Your task to perform on an android device: Clear the shopping cart on amazon.com. Add "bose soundlink mini" to the cart on amazon.com, then select checkout. Image 0: 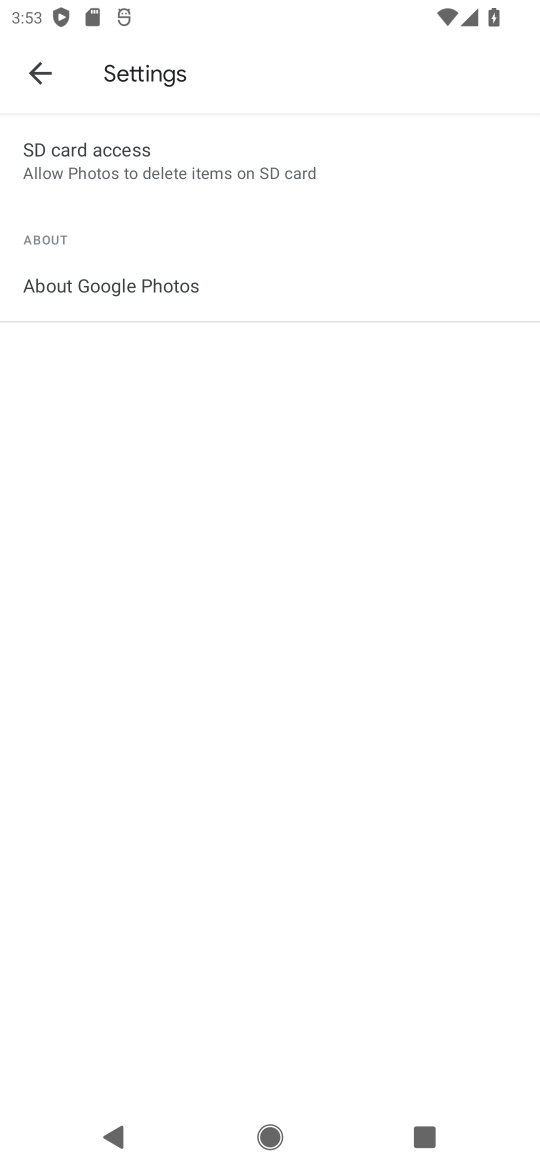
Step 0: press home button
Your task to perform on an android device: Clear the shopping cart on amazon.com. Add "bose soundlink mini" to the cart on amazon.com, then select checkout. Image 1: 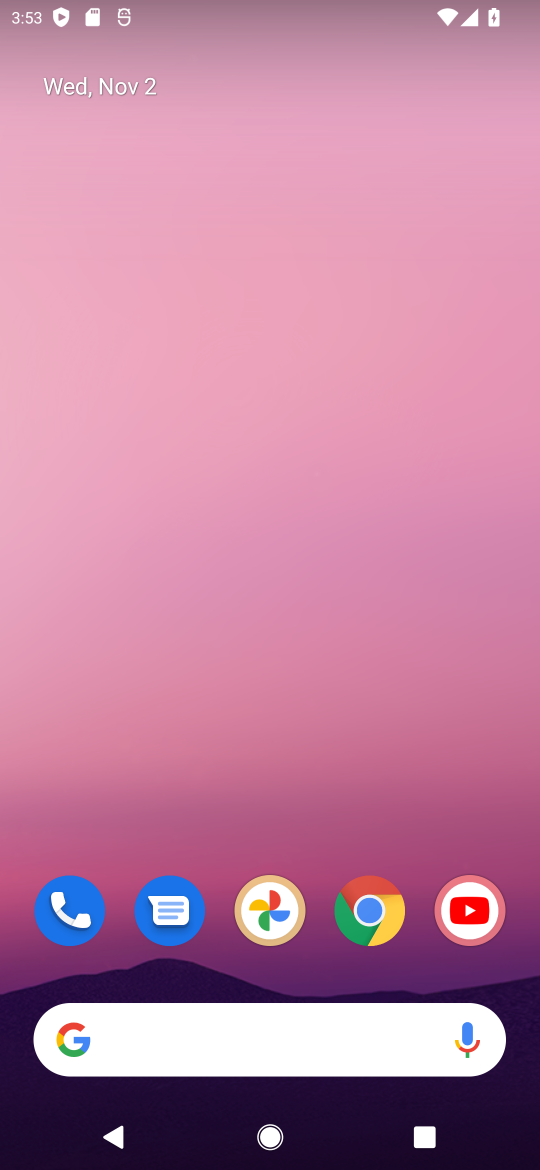
Step 1: click (365, 933)
Your task to perform on an android device: Clear the shopping cart on amazon.com. Add "bose soundlink mini" to the cart on amazon.com, then select checkout. Image 2: 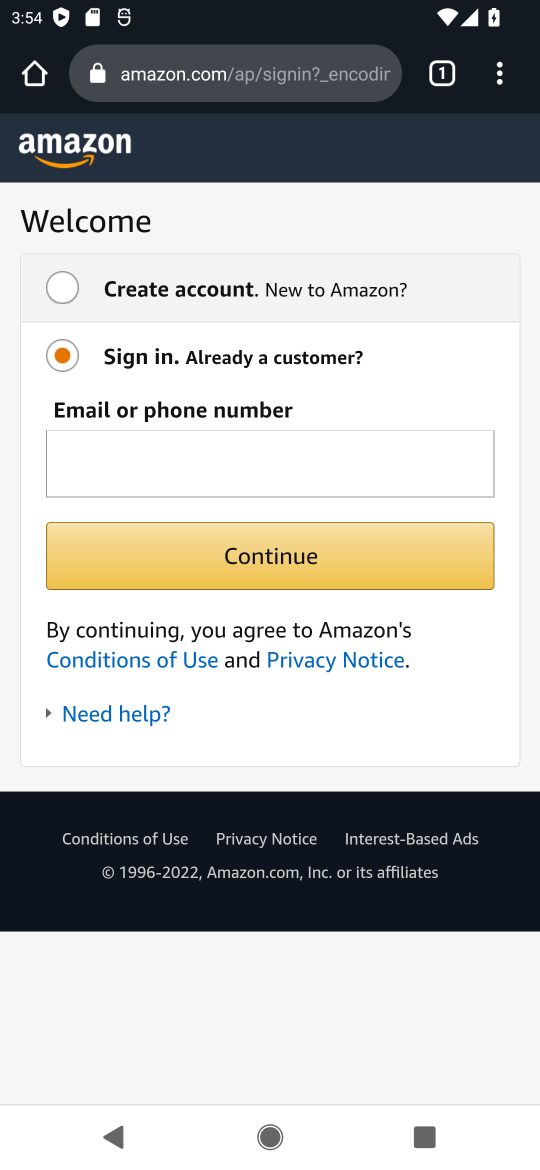
Step 2: click (94, 151)
Your task to perform on an android device: Clear the shopping cart on amazon.com. Add "bose soundlink mini" to the cart on amazon.com, then select checkout. Image 3: 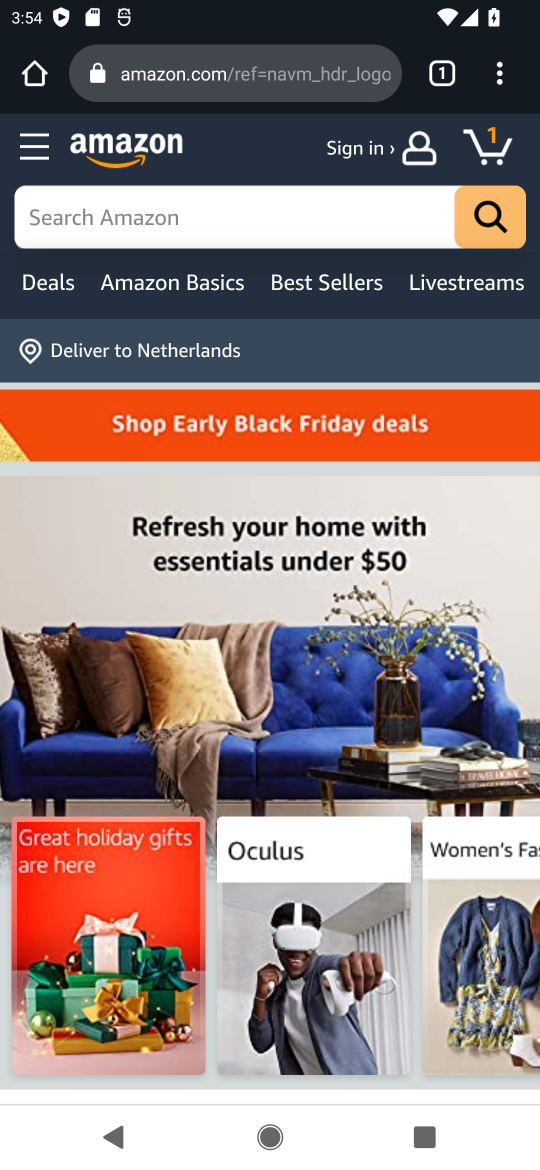
Step 3: click (514, 139)
Your task to perform on an android device: Clear the shopping cart on amazon.com. Add "bose soundlink mini" to the cart on amazon.com, then select checkout. Image 4: 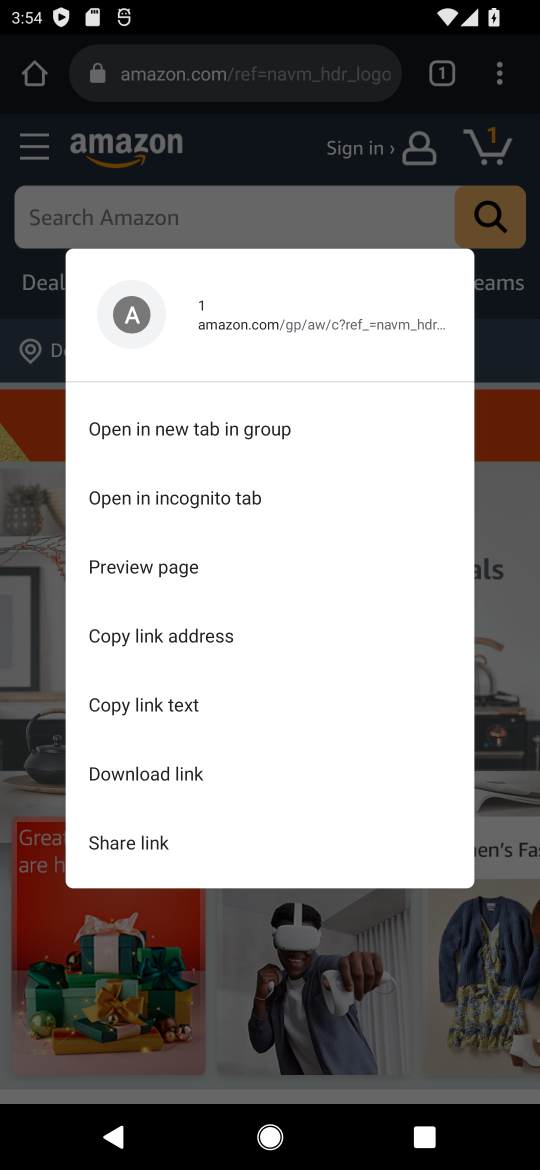
Step 4: click (532, 365)
Your task to perform on an android device: Clear the shopping cart on amazon.com. Add "bose soundlink mini" to the cart on amazon.com, then select checkout. Image 5: 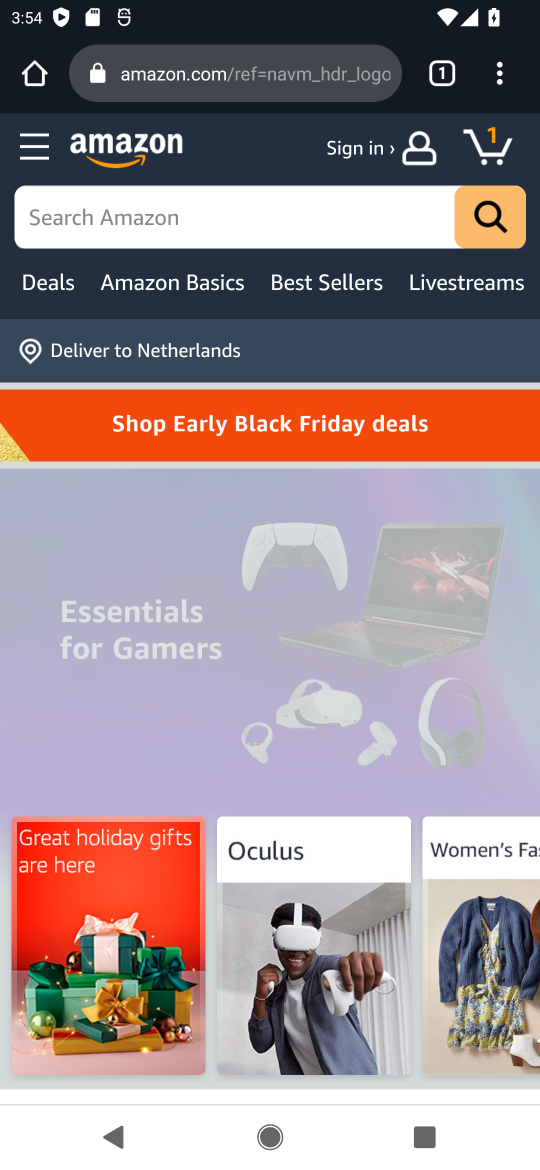
Step 5: click (490, 143)
Your task to perform on an android device: Clear the shopping cart on amazon.com. Add "bose soundlink mini" to the cart on amazon.com, then select checkout. Image 6: 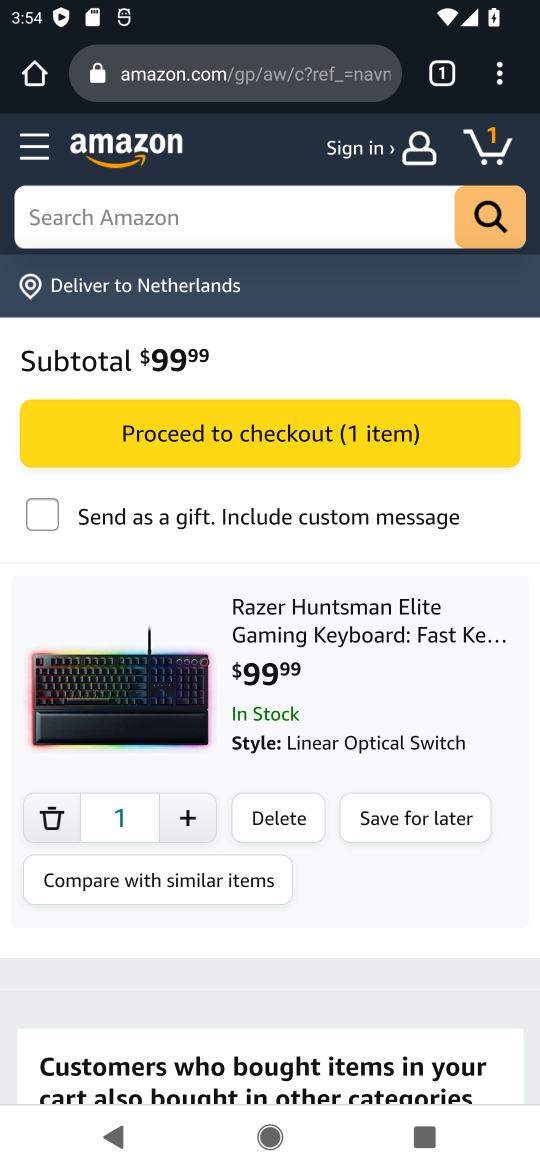
Step 6: click (262, 813)
Your task to perform on an android device: Clear the shopping cart on amazon.com. Add "bose soundlink mini" to the cart on amazon.com, then select checkout. Image 7: 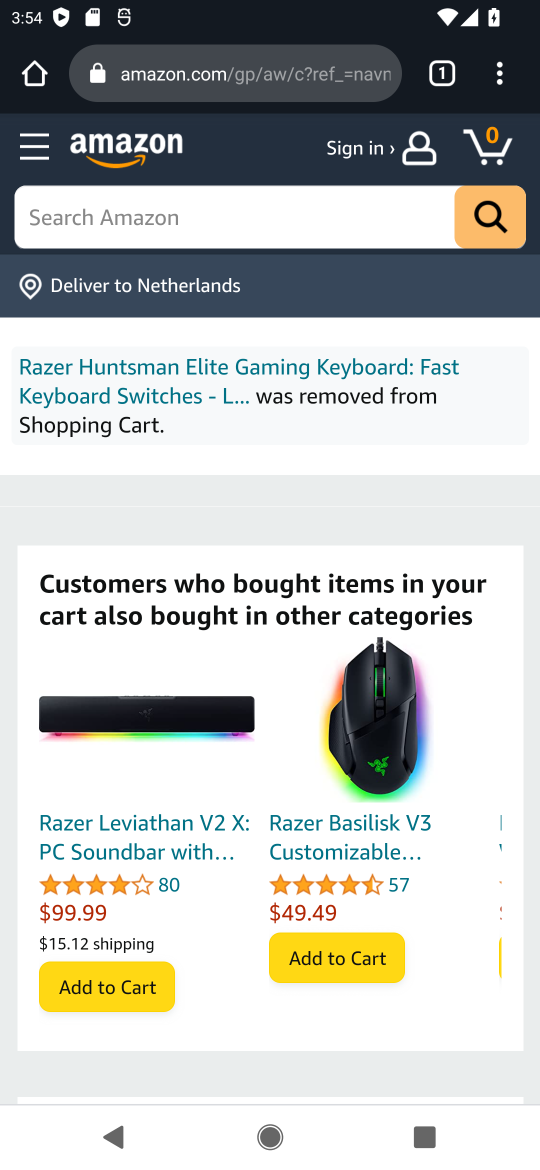
Step 7: click (226, 207)
Your task to perform on an android device: Clear the shopping cart on amazon.com. Add "bose soundlink mini" to the cart on amazon.com, then select checkout. Image 8: 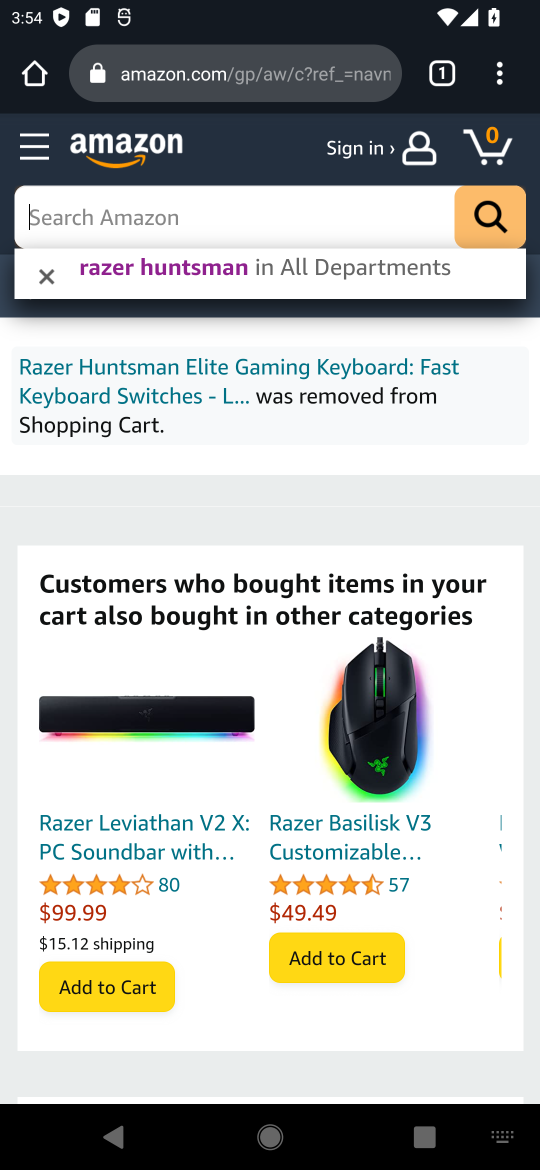
Step 8: type "bose soundlink mini"
Your task to perform on an android device: Clear the shopping cart on amazon.com. Add "bose soundlink mini" to the cart on amazon.com, then select checkout. Image 9: 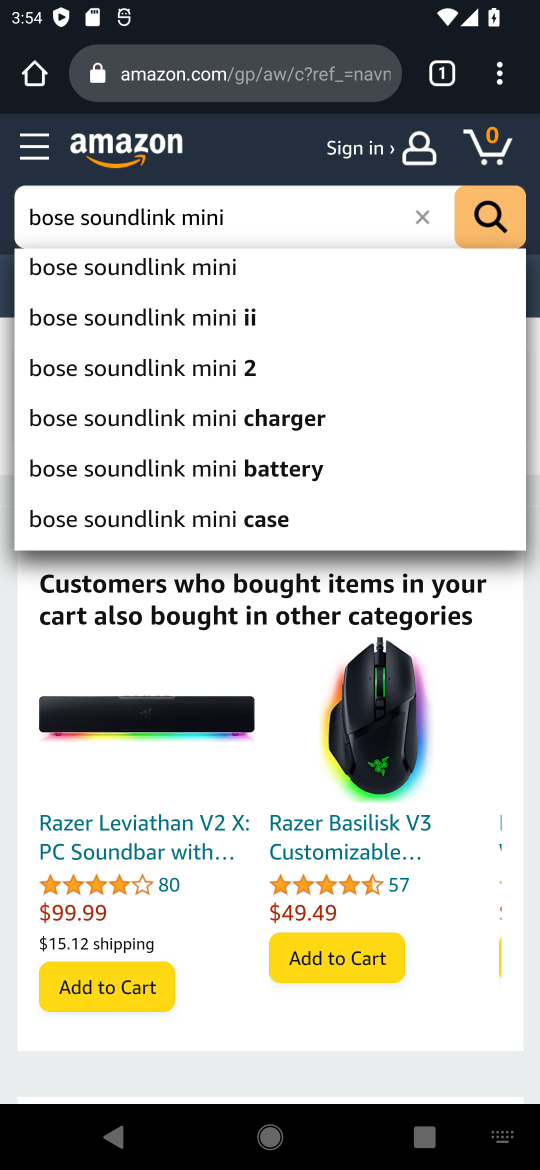
Step 9: click (98, 262)
Your task to perform on an android device: Clear the shopping cart on amazon.com. Add "bose soundlink mini" to the cart on amazon.com, then select checkout. Image 10: 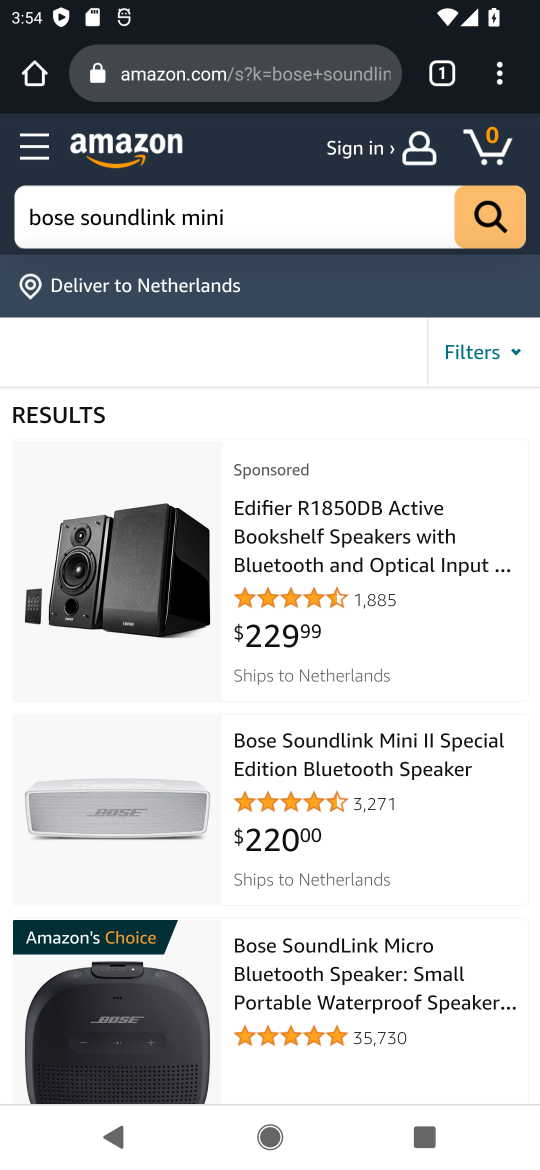
Step 10: click (320, 969)
Your task to perform on an android device: Clear the shopping cart on amazon.com. Add "bose soundlink mini" to the cart on amazon.com, then select checkout. Image 11: 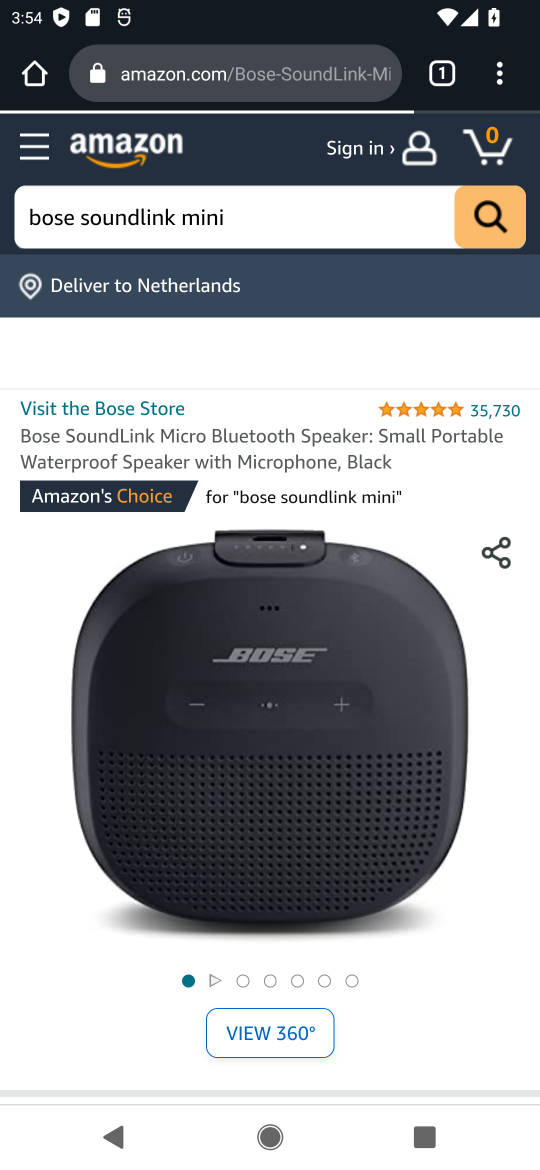
Step 11: drag from (325, 899) to (418, 259)
Your task to perform on an android device: Clear the shopping cart on amazon.com. Add "bose soundlink mini" to the cart on amazon.com, then select checkout. Image 12: 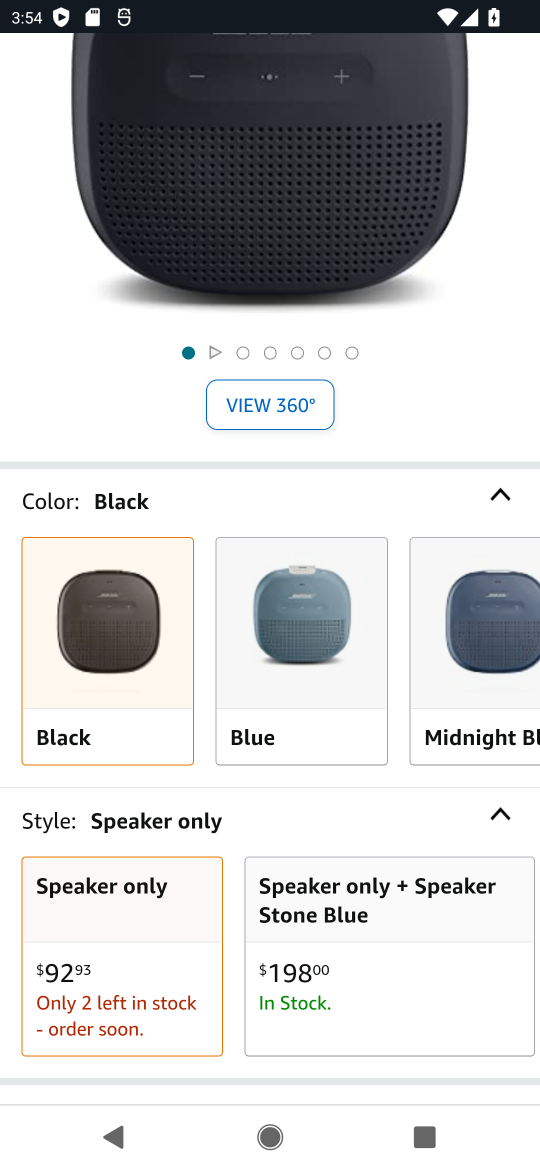
Step 12: drag from (448, 708) to (249, 684)
Your task to perform on an android device: Clear the shopping cart on amazon.com. Add "bose soundlink mini" to the cart on amazon.com, then select checkout. Image 13: 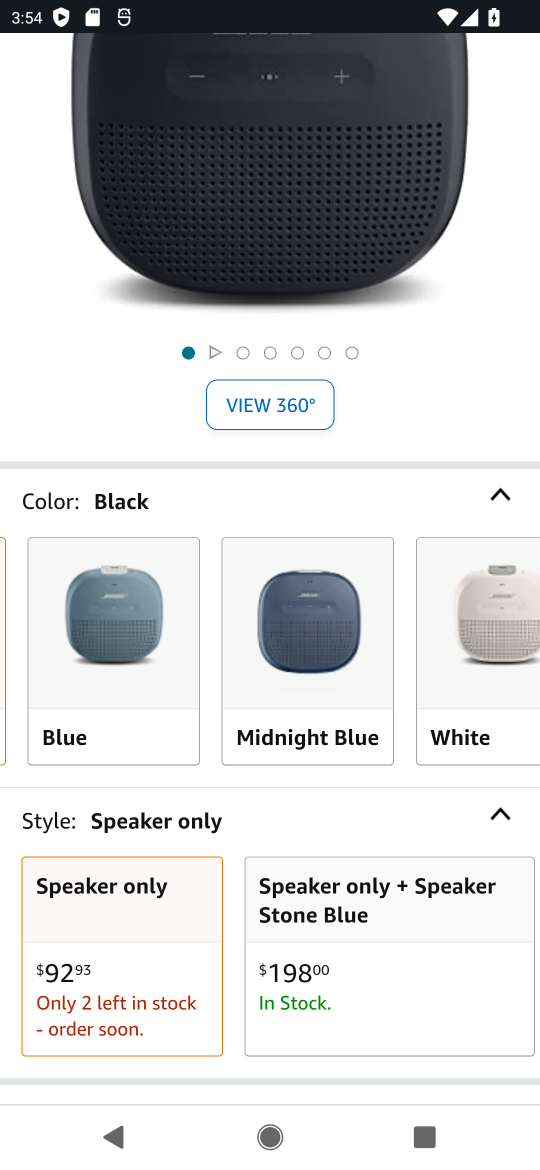
Step 13: click (309, 675)
Your task to perform on an android device: Clear the shopping cart on amazon.com. Add "bose soundlink mini" to the cart on amazon.com, then select checkout. Image 14: 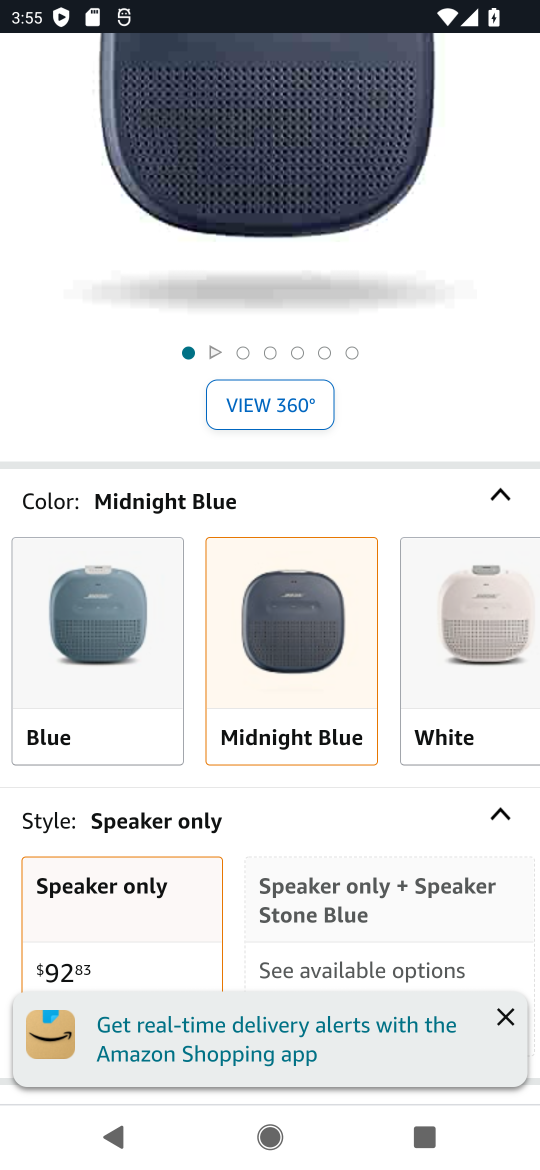
Step 14: click (370, 1022)
Your task to perform on an android device: Clear the shopping cart on amazon.com. Add "bose soundlink mini" to the cart on amazon.com, then select checkout. Image 15: 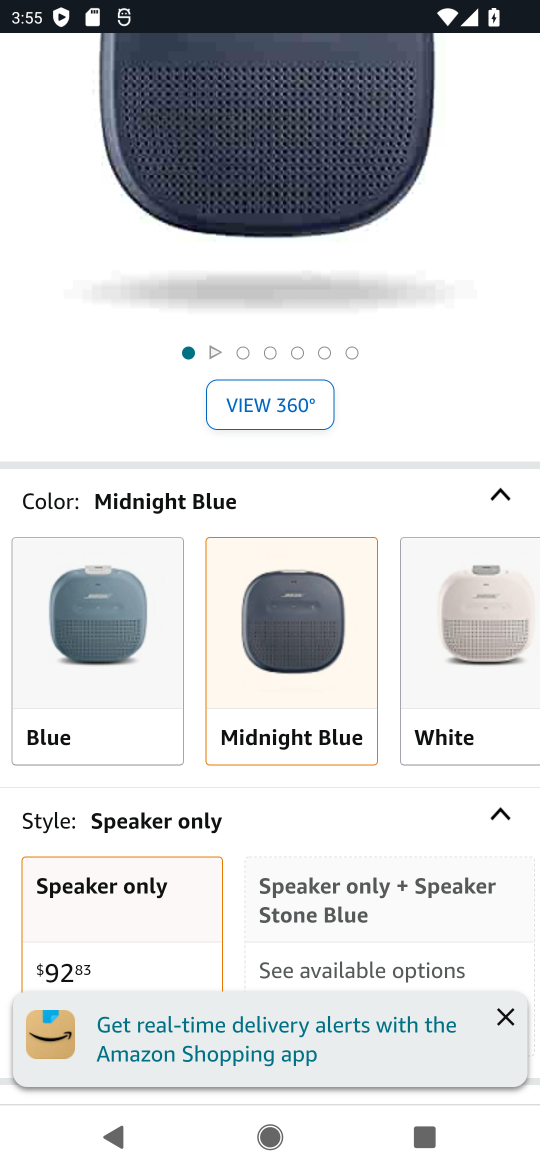
Step 15: click (515, 1014)
Your task to perform on an android device: Clear the shopping cart on amazon.com. Add "bose soundlink mini" to the cart on amazon.com, then select checkout. Image 16: 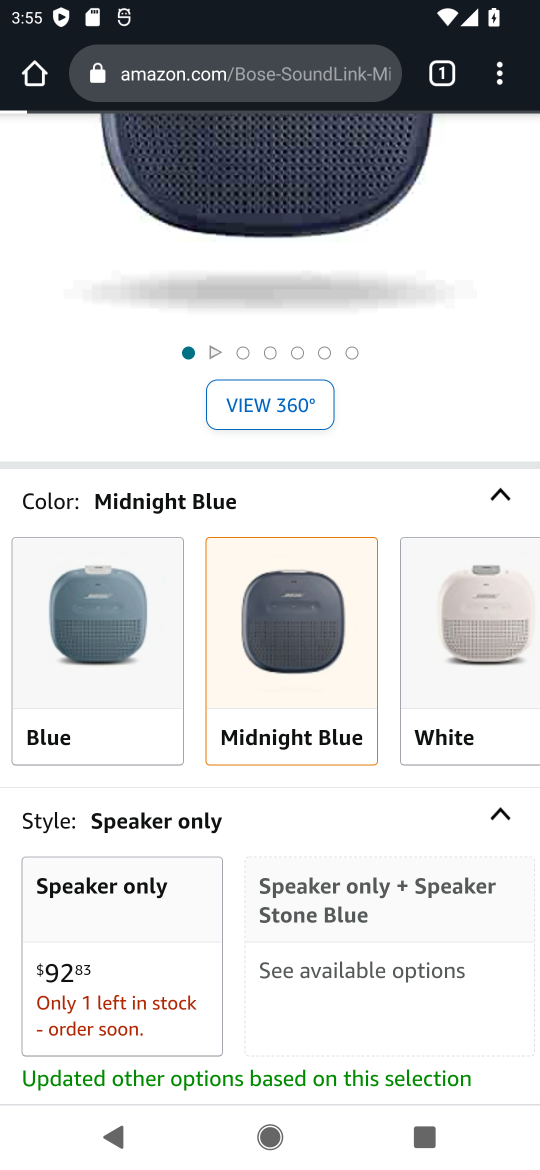
Step 16: drag from (485, 1003) to (460, 350)
Your task to perform on an android device: Clear the shopping cart on amazon.com. Add "bose soundlink mini" to the cart on amazon.com, then select checkout. Image 17: 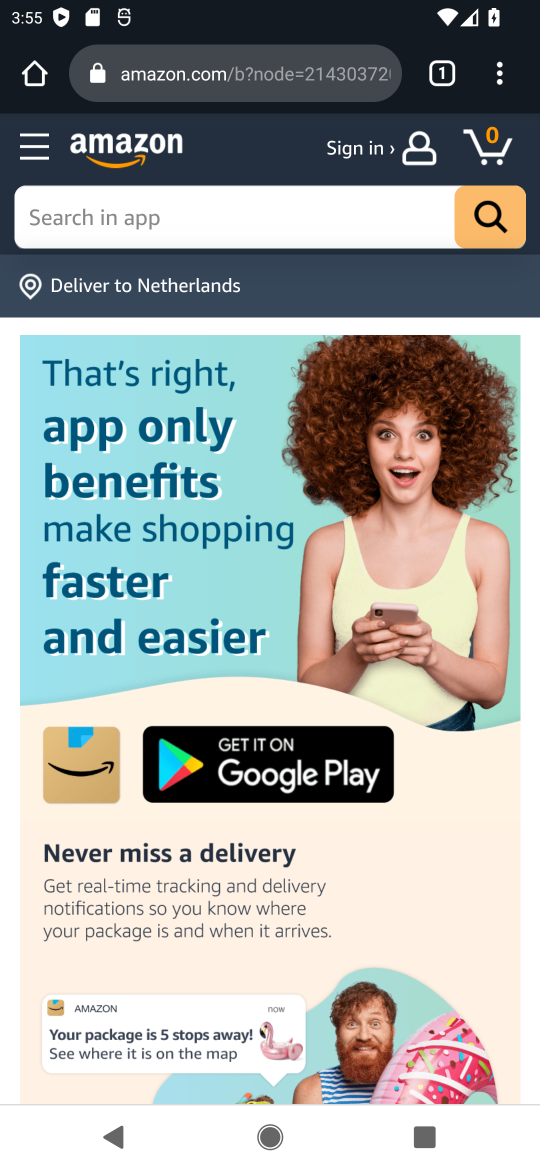
Step 17: press back button
Your task to perform on an android device: Clear the shopping cart on amazon.com. Add "bose soundlink mini" to the cart on amazon.com, then select checkout. Image 18: 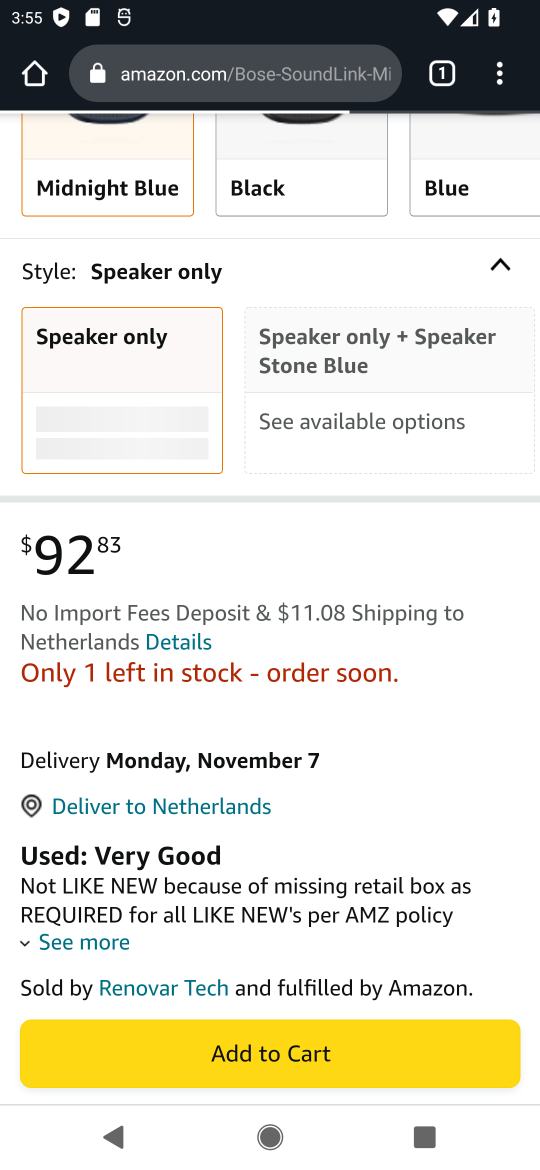
Step 18: drag from (271, 923) to (314, 526)
Your task to perform on an android device: Clear the shopping cart on amazon.com. Add "bose soundlink mini" to the cart on amazon.com, then select checkout. Image 19: 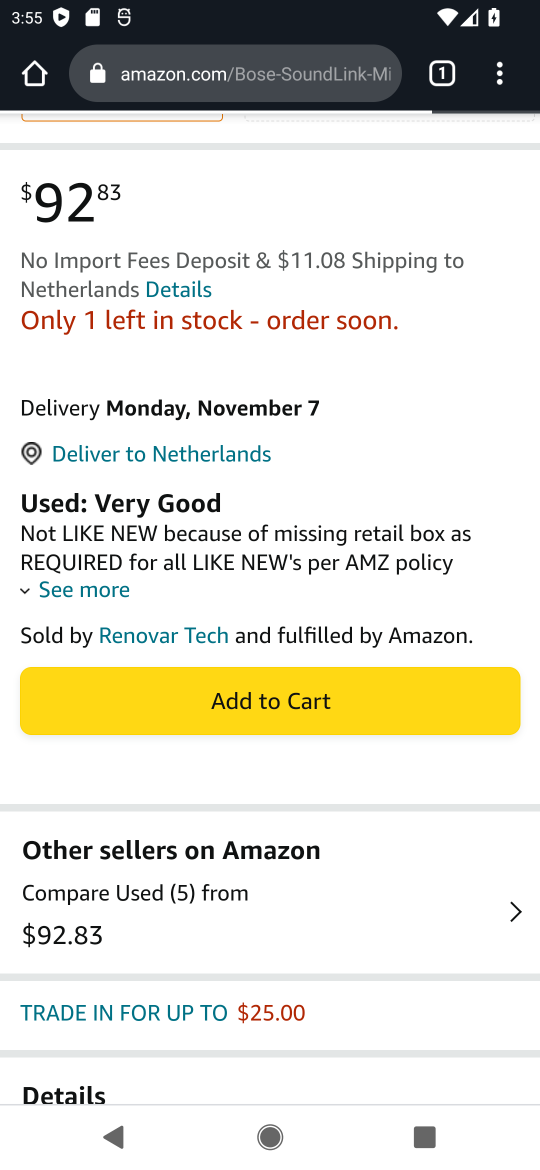
Step 19: click (284, 714)
Your task to perform on an android device: Clear the shopping cart on amazon.com. Add "bose soundlink mini" to the cart on amazon.com, then select checkout. Image 20: 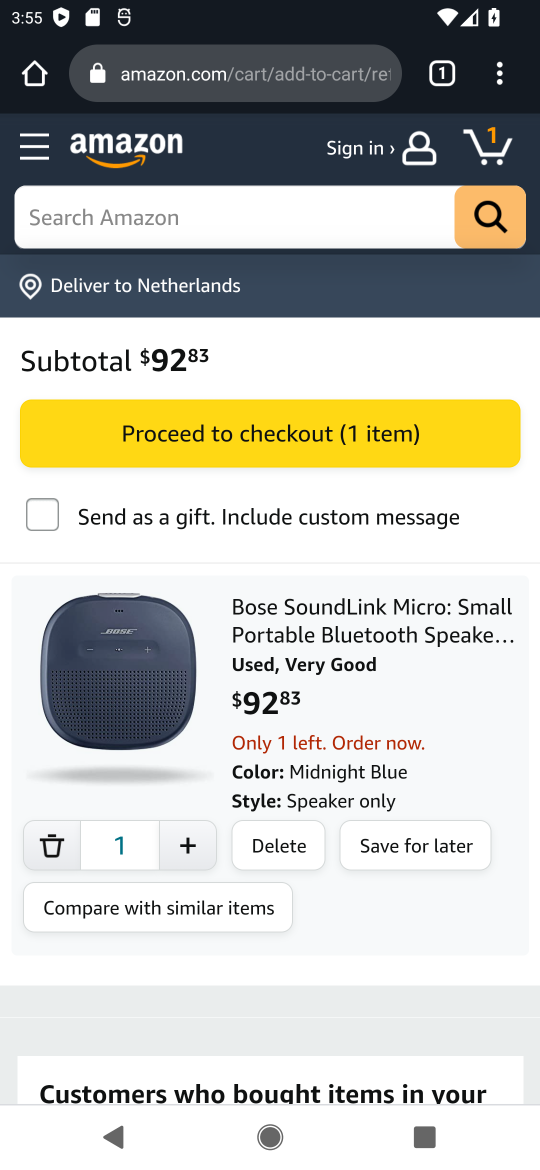
Step 20: click (256, 446)
Your task to perform on an android device: Clear the shopping cart on amazon.com. Add "bose soundlink mini" to the cart on amazon.com, then select checkout. Image 21: 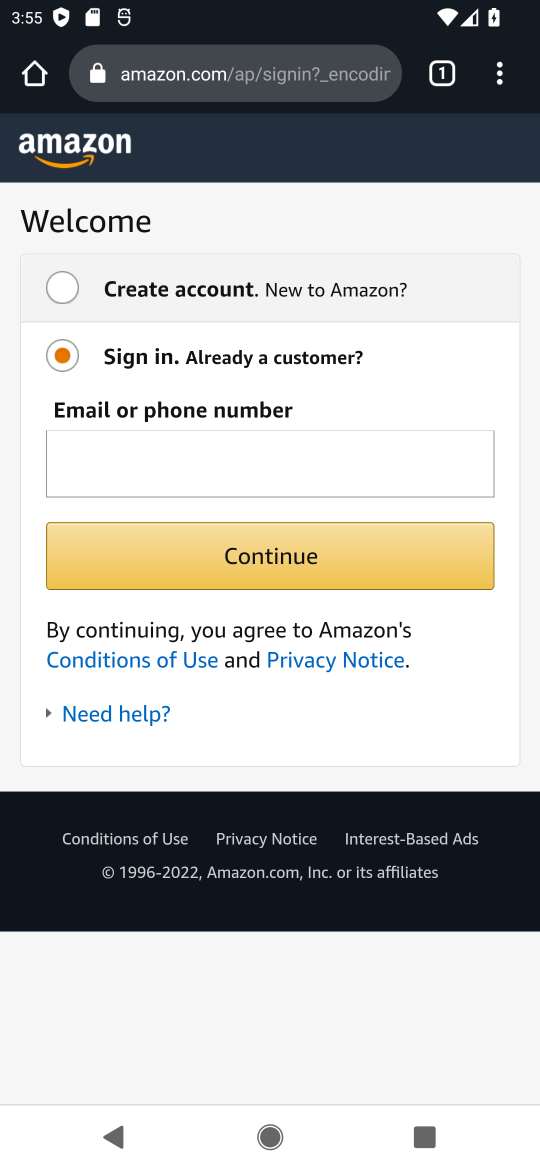
Step 21: task complete